Your task to perform on an android device: turn off picture-in-picture Image 0: 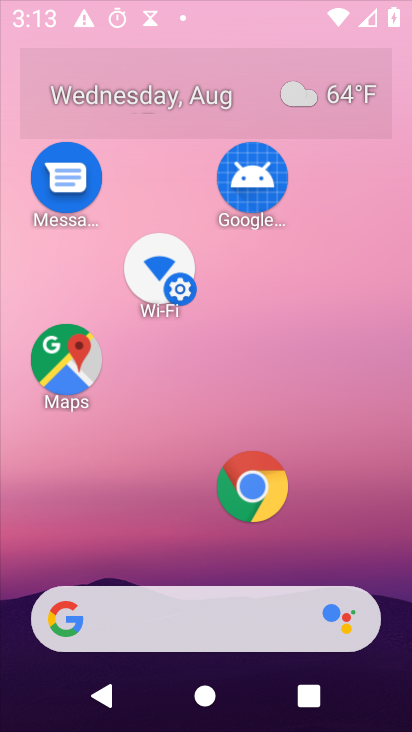
Step 0: press home button
Your task to perform on an android device: turn off picture-in-picture Image 1: 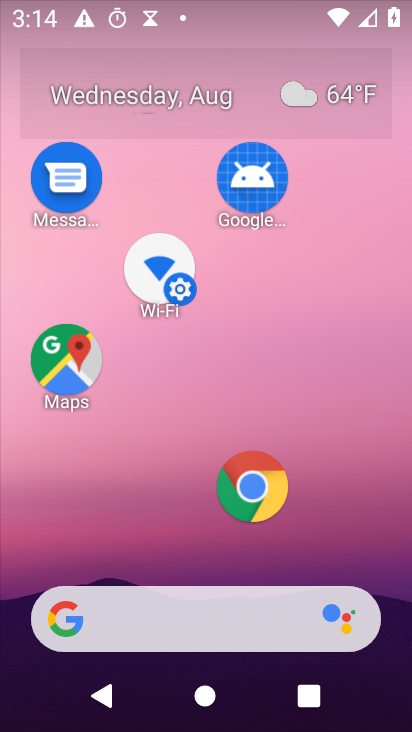
Step 1: click (255, 482)
Your task to perform on an android device: turn off picture-in-picture Image 2: 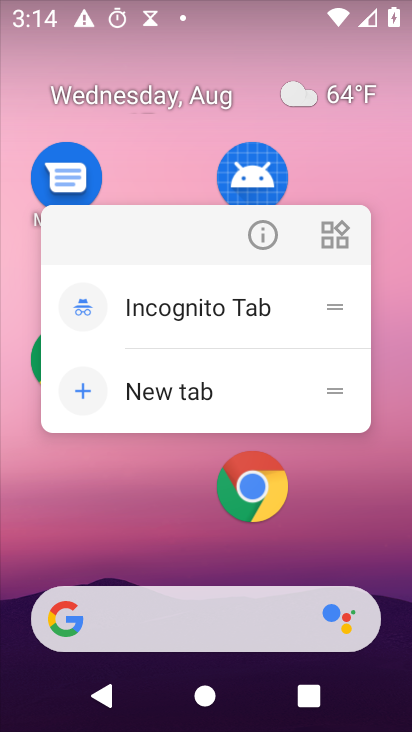
Step 2: click (264, 233)
Your task to perform on an android device: turn off picture-in-picture Image 3: 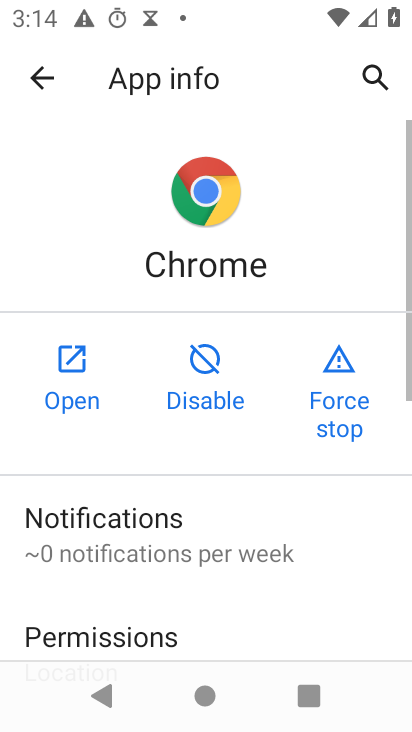
Step 3: drag from (311, 620) to (327, 196)
Your task to perform on an android device: turn off picture-in-picture Image 4: 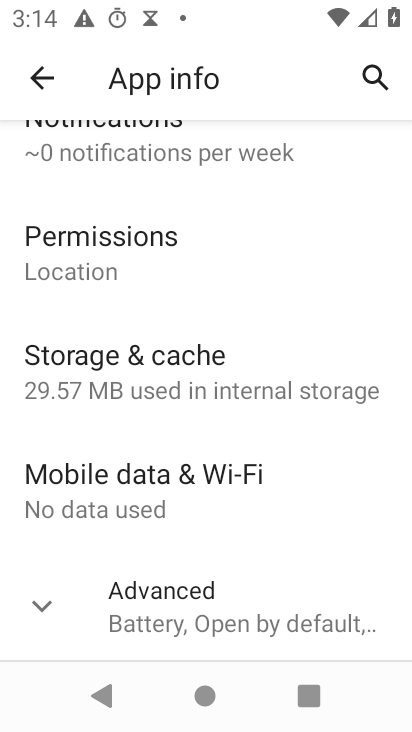
Step 4: click (184, 602)
Your task to perform on an android device: turn off picture-in-picture Image 5: 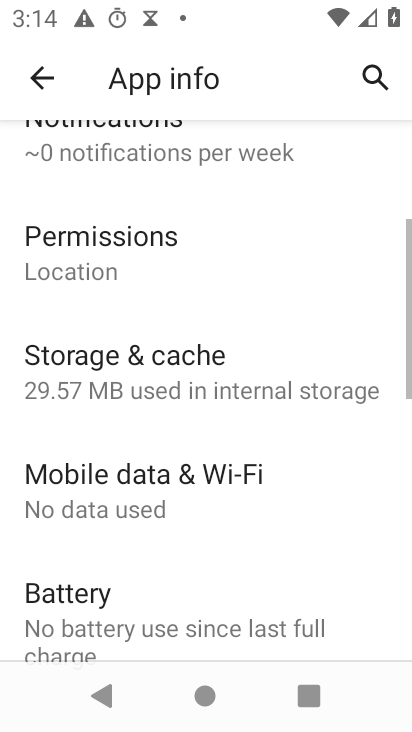
Step 5: drag from (393, 564) to (390, 39)
Your task to perform on an android device: turn off picture-in-picture Image 6: 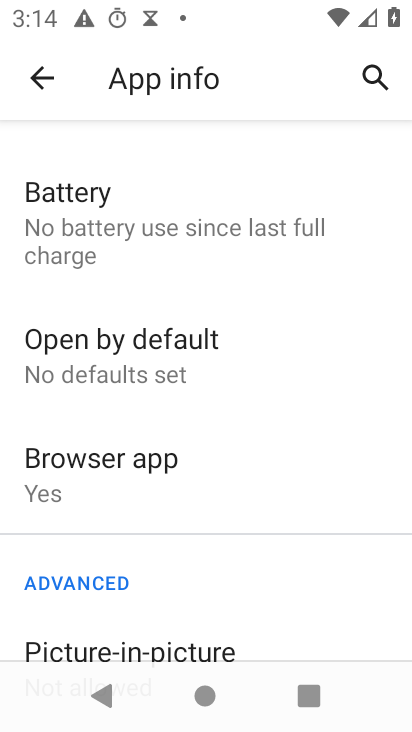
Step 6: drag from (317, 551) to (340, 245)
Your task to perform on an android device: turn off picture-in-picture Image 7: 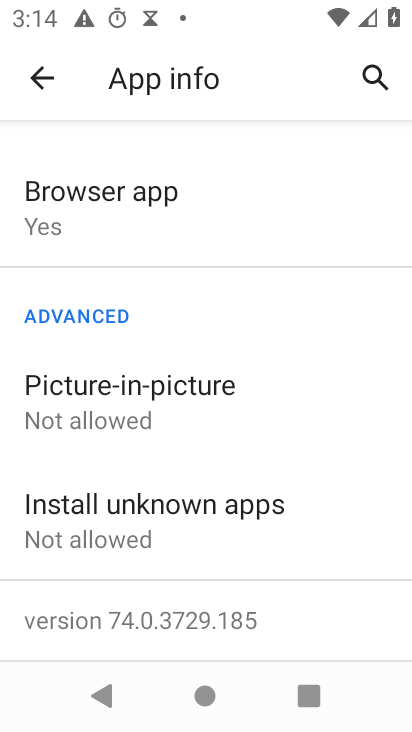
Step 7: click (126, 397)
Your task to perform on an android device: turn off picture-in-picture Image 8: 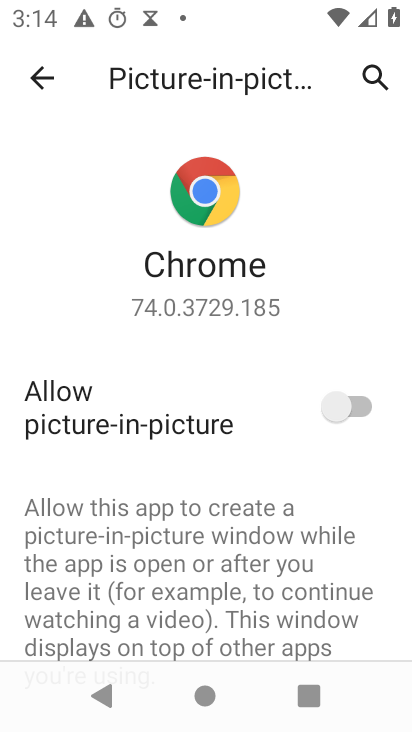
Step 8: task complete